Your task to perform on an android device: turn smart compose on in the gmail app Image 0: 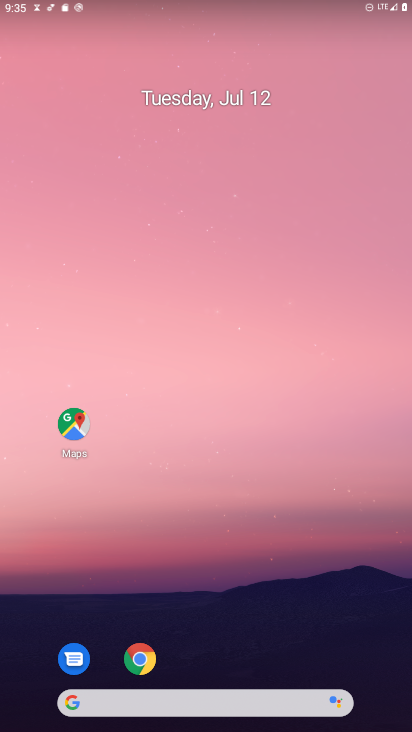
Step 0: drag from (197, 701) to (217, 218)
Your task to perform on an android device: turn smart compose on in the gmail app Image 1: 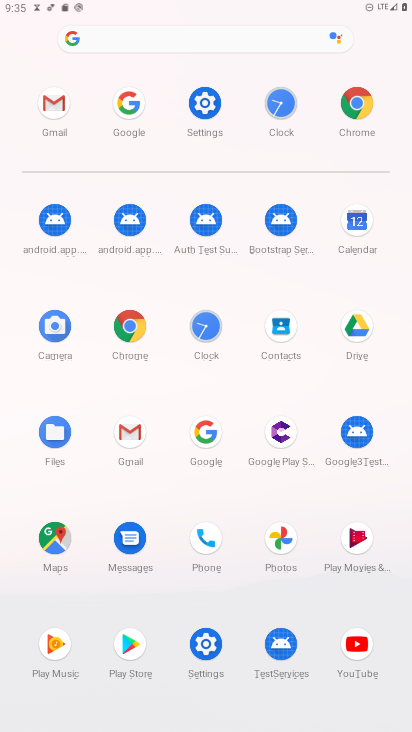
Step 1: click (53, 101)
Your task to perform on an android device: turn smart compose on in the gmail app Image 2: 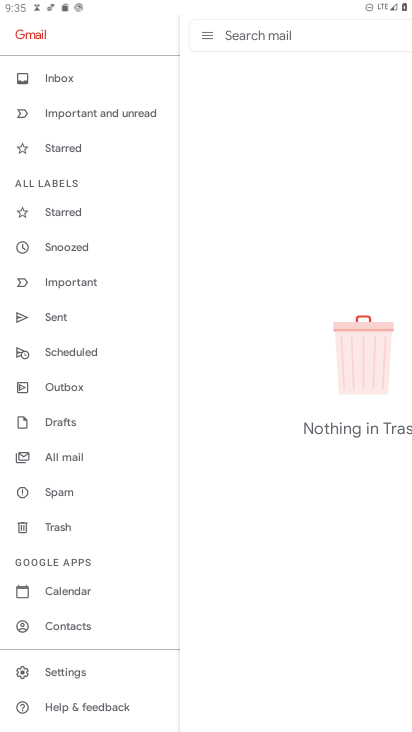
Step 2: click (69, 674)
Your task to perform on an android device: turn smart compose on in the gmail app Image 3: 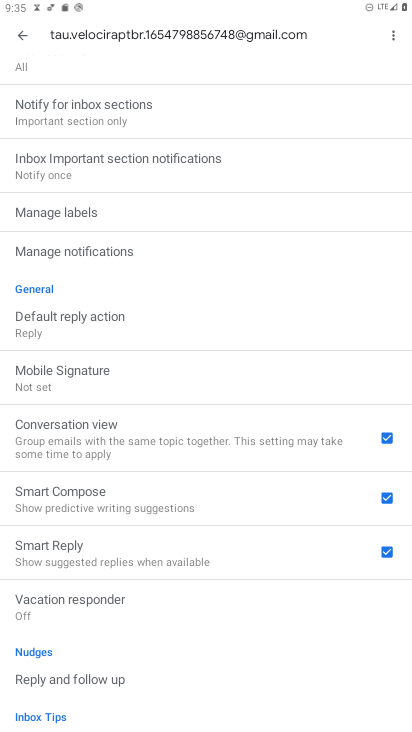
Step 3: task complete